Your task to perform on an android device: make emails show in primary in the gmail app Image 0: 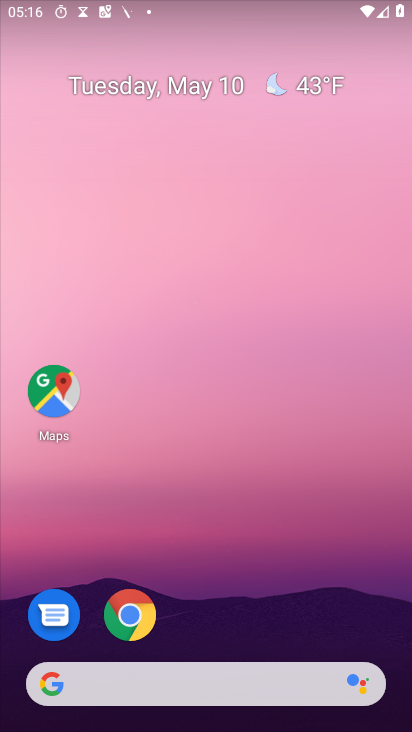
Step 0: drag from (292, 657) to (320, 80)
Your task to perform on an android device: make emails show in primary in the gmail app Image 1: 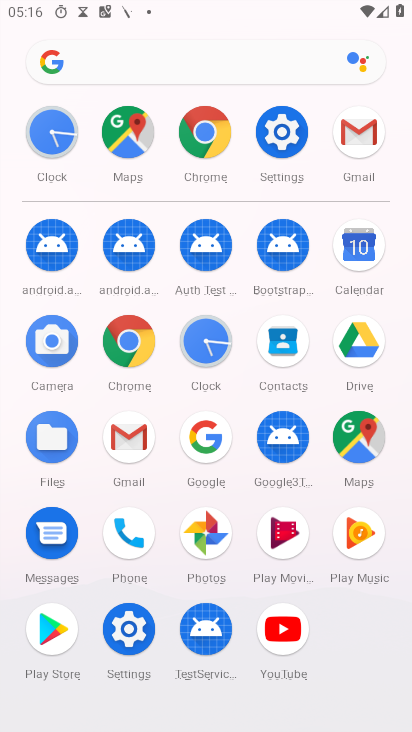
Step 1: click (135, 443)
Your task to perform on an android device: make emails show in primary in the gmail app Image 2: 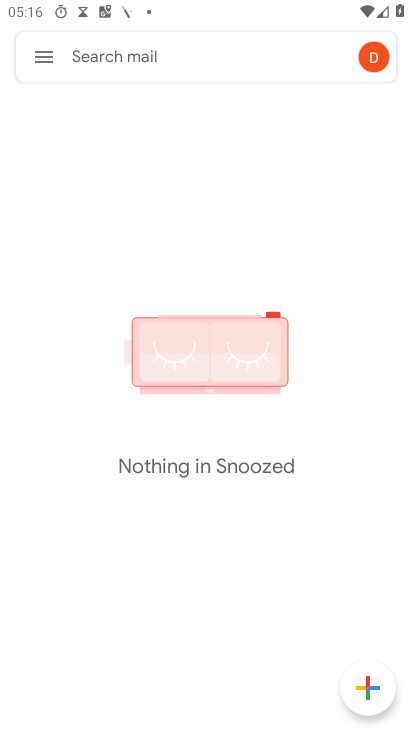
Step 2: click (48, 60)
Your task to perform on an android device: make emails show in primary in the gmail app Image 3: 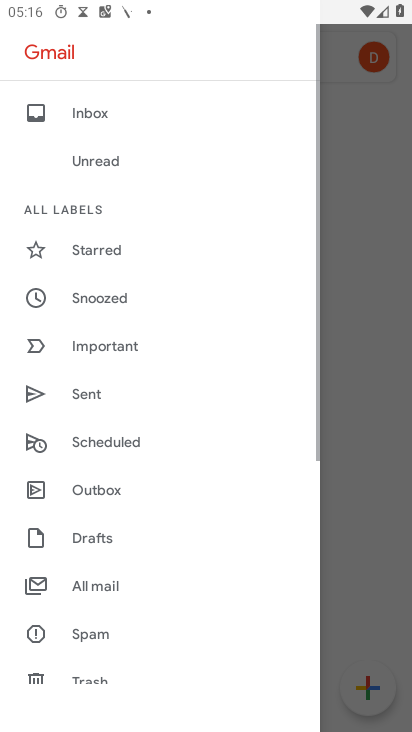
Step 3: drag from (148, 167) to (134, 634)
Your task to perform on an android device: make emails show in primary in the gmail app Image 4: 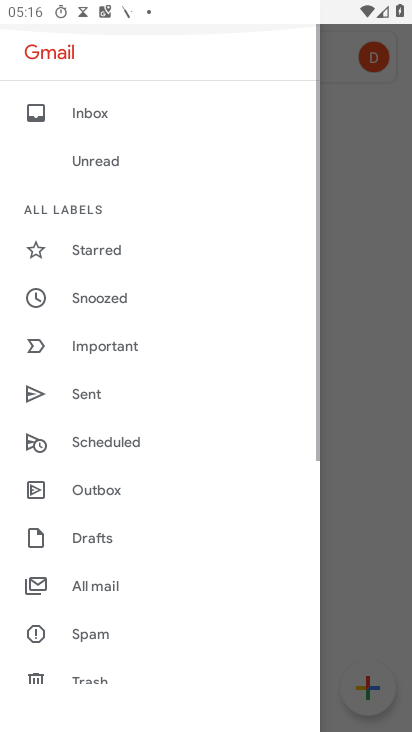
Step 4: drag from (169, 644) to (217, 109)
Your task to perform on an android device: make emails show in primary in the gmail app Image 5: 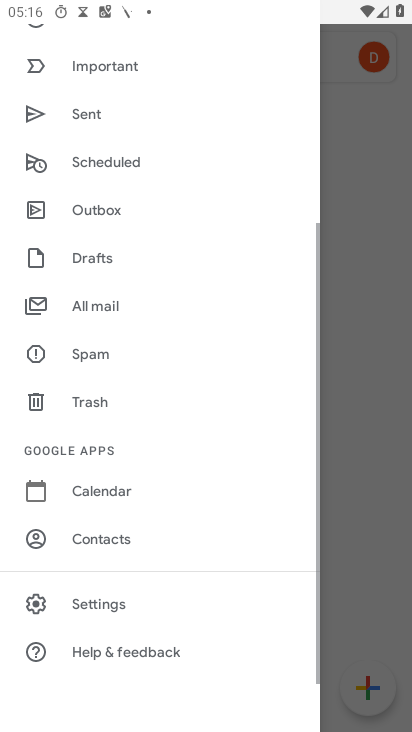
Step 5: click (139, 594)
Your task to perform on an android device: make emails show in primary in the gmail app Image 6: 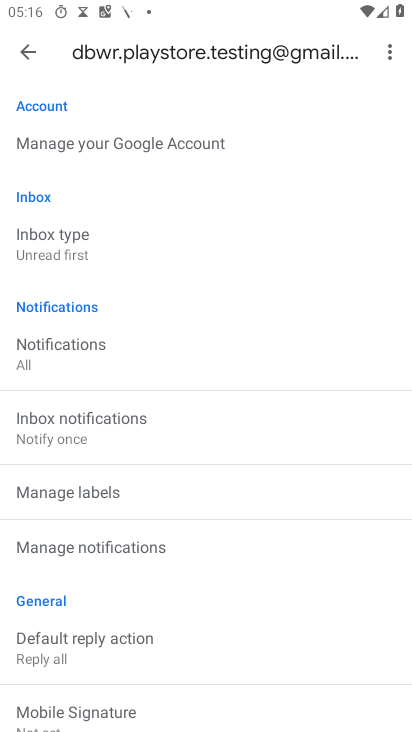
Step 6: drag from (249, 633) to (281, 321)
Your task to perform on an android device: make emails show in primary in the gmail app Image 7: 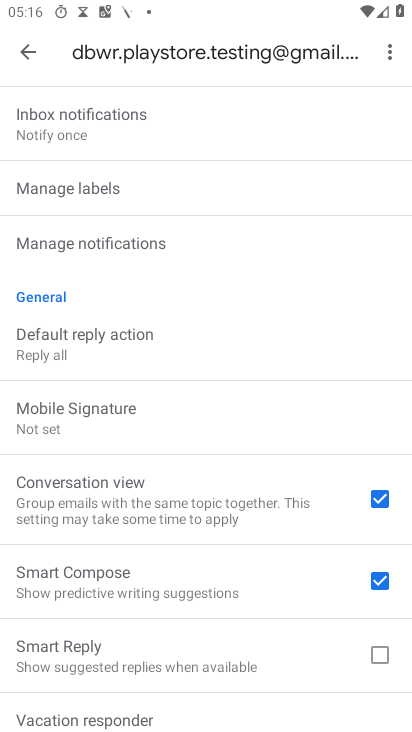
Step 7: drag from (228, 205) to (163, 714)
Your task to perform on an android device: make emails show in primary in the gmail app Image 8: 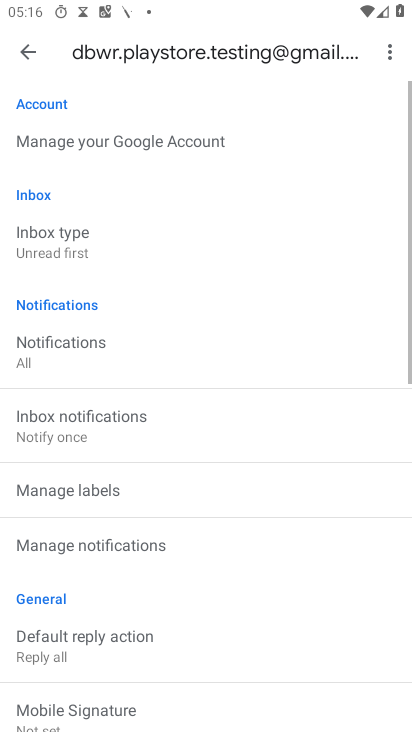
Step 8: click (81, 236)
Your task to perform on an android device: make emails show in primary in the gmail app Image 9: 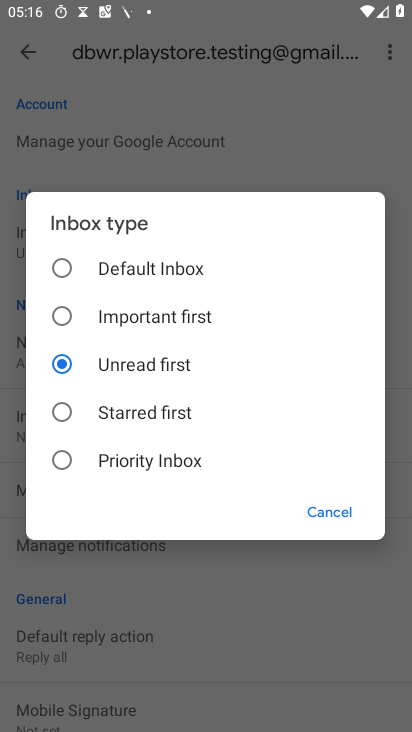
Step 9: click (136, 271)
Your task to perform on an android device: make emails show in primary in the gmail app Image 10: 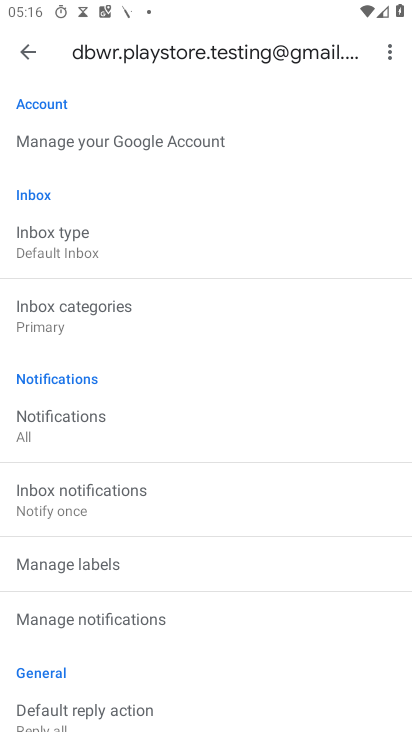
Step 10: press back button
Your task to perform on an android device: make emails show in primary in the gmail app Image 11: 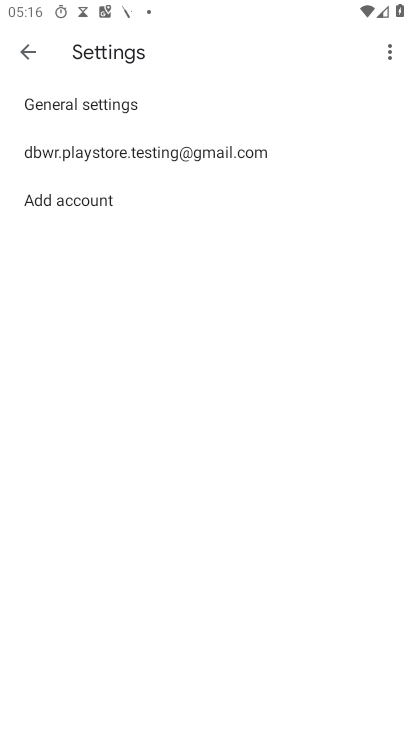
Step 11: press back button
Your task to perform on an android device: make emails show in primary in the gmail app Image 12: 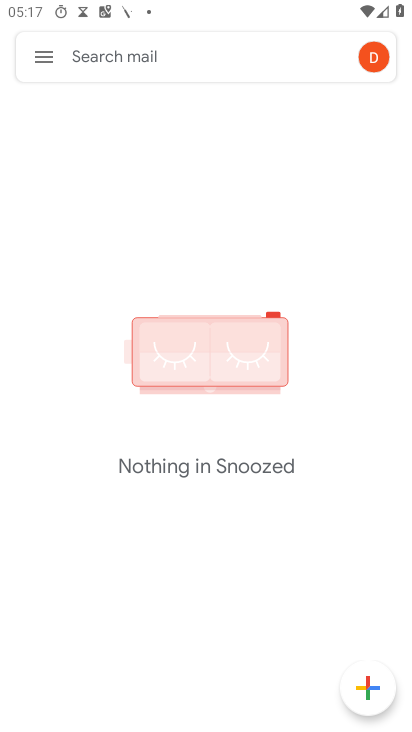
Step 12: click (44, 51)
Your task to perform on an android device: make emails show in primary in the gmail app Image 13: 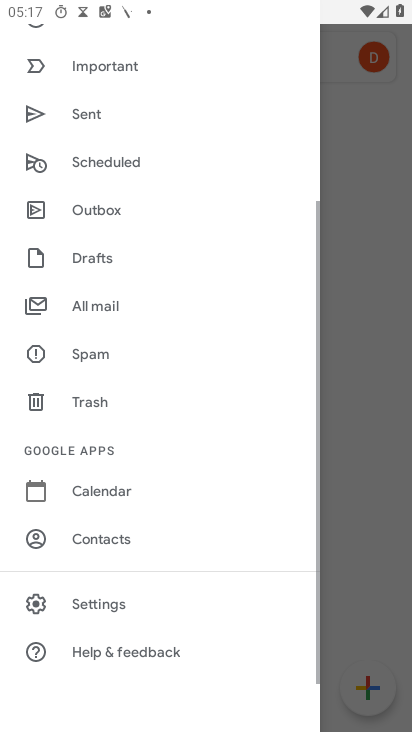
Step 13: task complete